Your task to perform on an android device: Open the map Image 0: 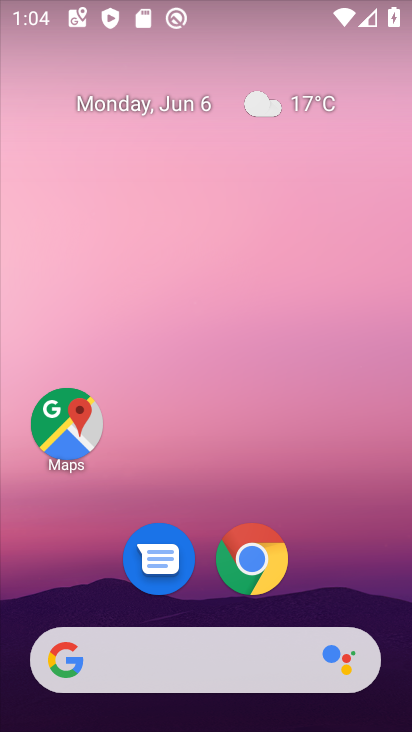
Step 0: drag from (359, 536) to (311, 152)
Your task to perform on an android device: Open the map Image 1: 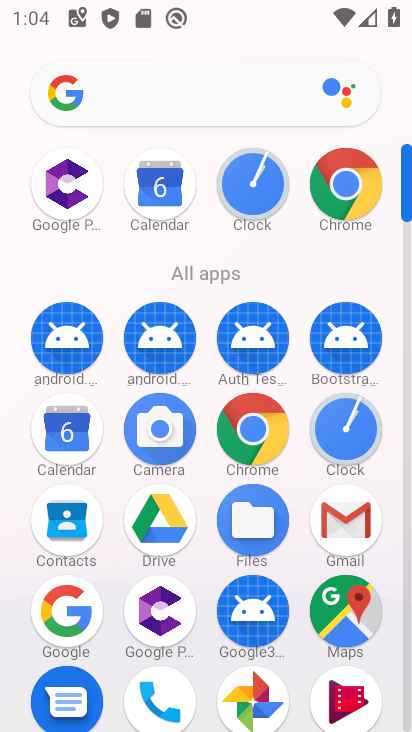
Step 1: click (359, 622)
Your task to perform on an android device: Open the map Image 2: 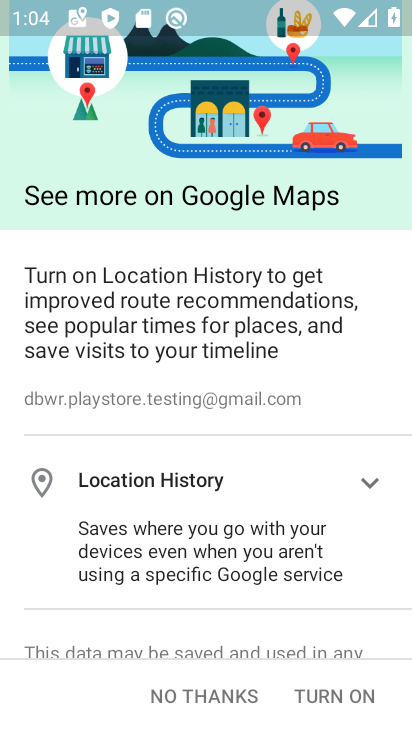
Step 2: click (227, 691)
Your task to perform on an android device: Open the map Image 3: 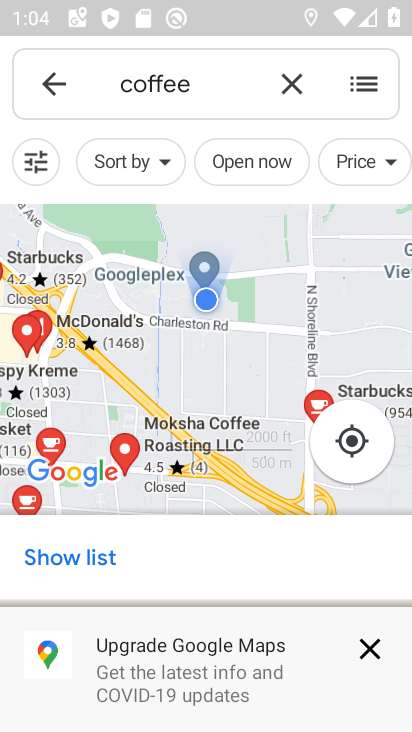
Step 3: task complete